Your task to perform on an android device: What's the news? Image 0: 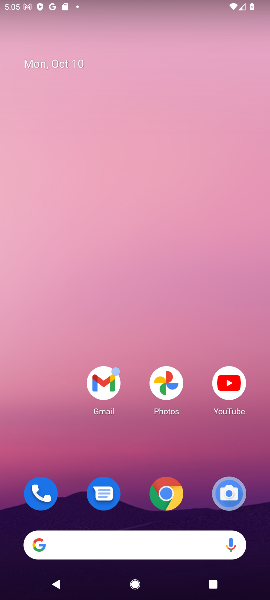
Step 0: click (87, 551)
Your task to perform on an android device: What's the news? Image 1: 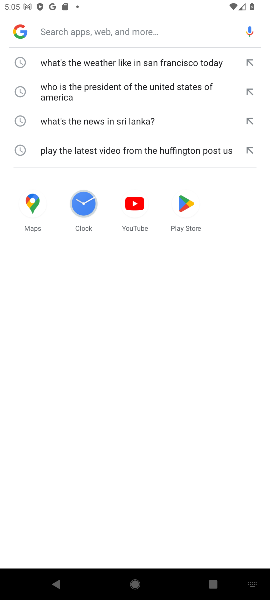
Step 1: type "What's the news?"
Your task to perform on an android device: What's the news? Image 2: 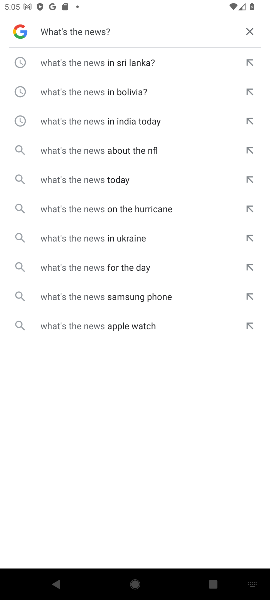
Step 2: click (148, 55)
Your task to perform on an android device: What's the news? Image 3: 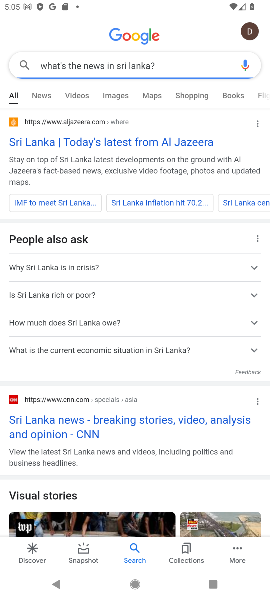
Step 3: task complete